Your task to perform on an android device: Search for Italian restaurants on Maps Image 0: 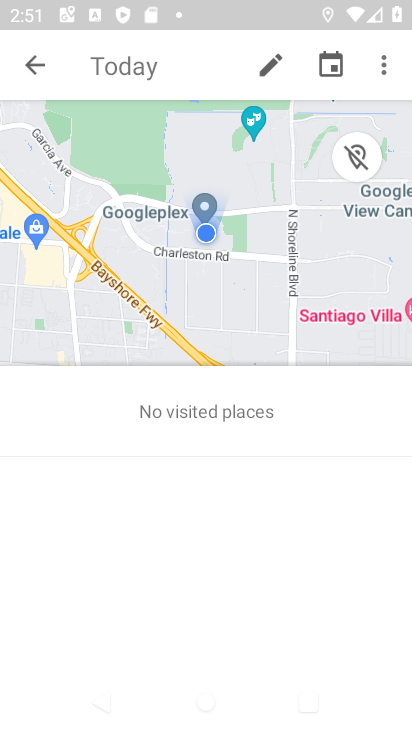
Step 0: press home button
Your task to perform on an android device: Search for Italian restaurants on Maps Image 1: 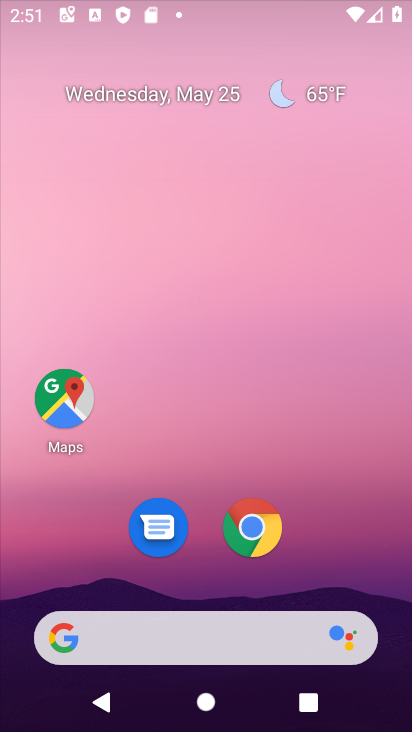
Step 1: drag from (365, 603) to (404, 32)
Your task to perform on an android device: Search for Italian restaurants on Maps Image 2: 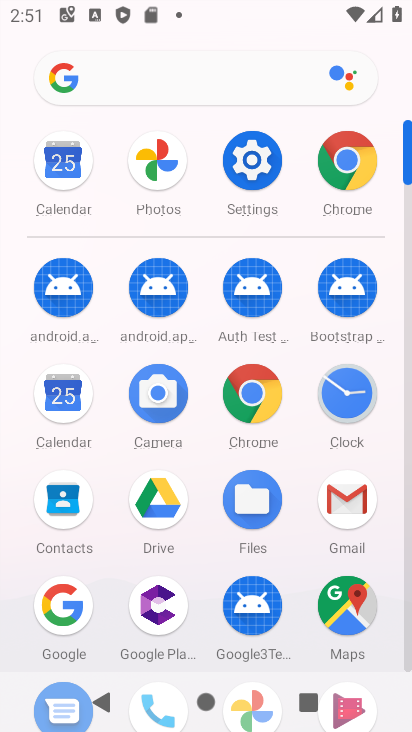
Step 2: click (332, 628)
Your task to perform on an android device: Search for Italian restaurants on Maps Image 3: 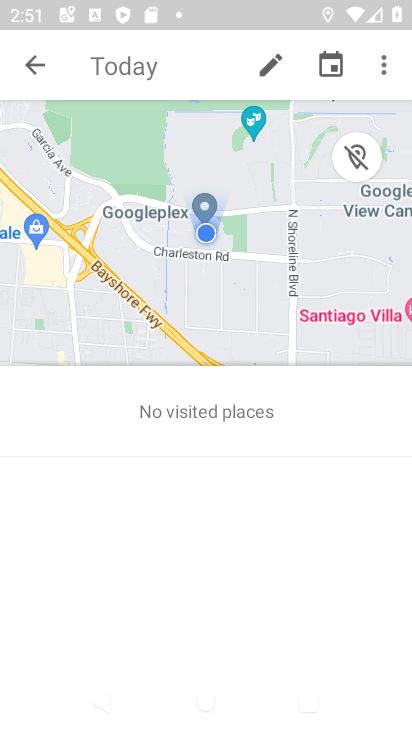
Step 3: press back button
Your task to perform on an android device: Search for Italian restaurants on Maps Image 4: 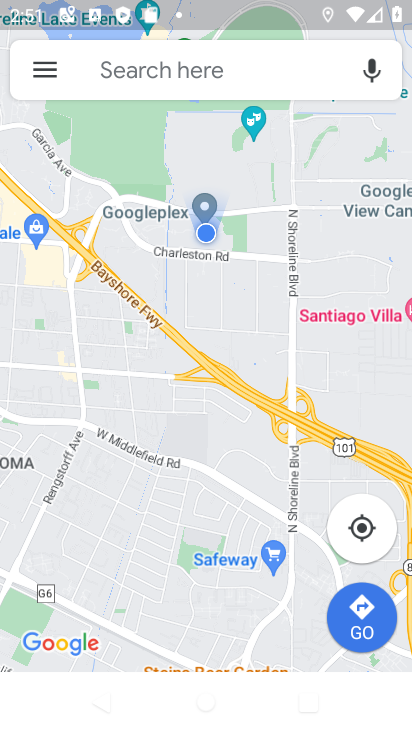
Step 4: click (267, 68)
Your task to perform on an android device: Search for Italian restaurants on Maps Image 5: 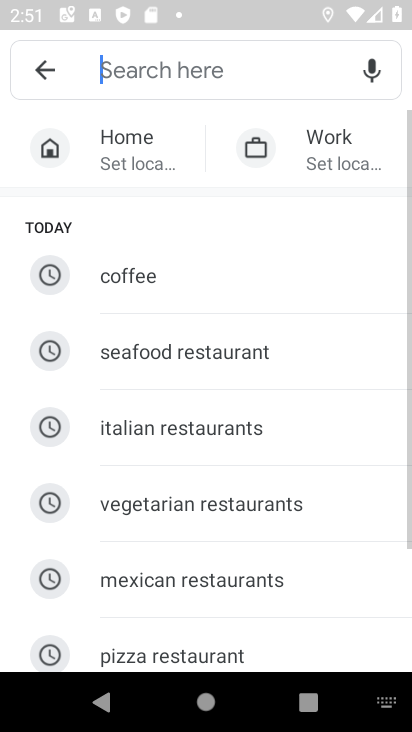
Step 5: click (193, 446)
Your task to perform on an android device: Search for Italian restaurants on Maps Image 6: 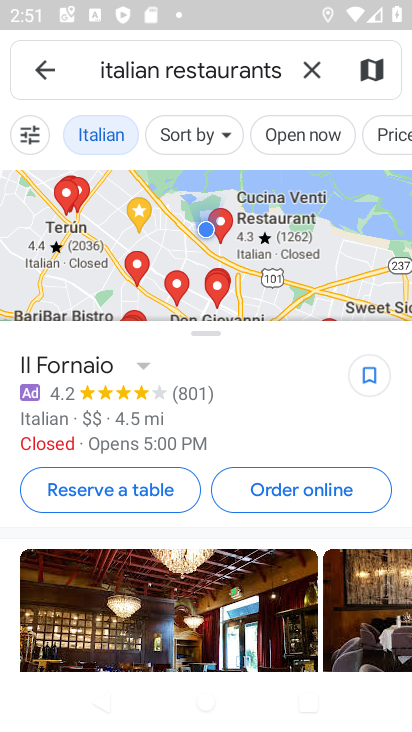
Step 6: task complete